Your task to perform on an android device: snooze an email in the gmail app Image 0: 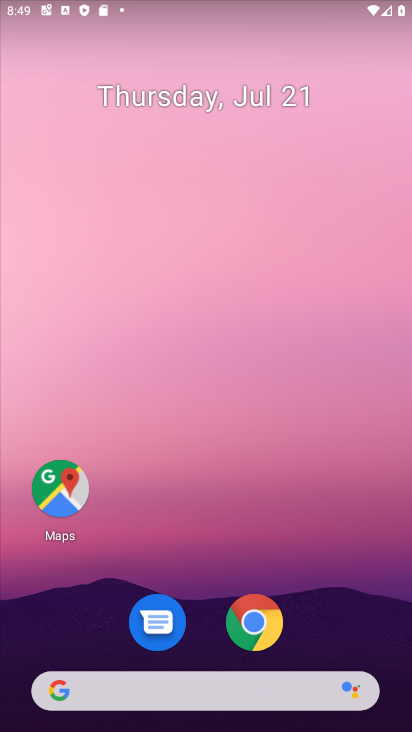
Step 0: drag from (67, 709) to (147, 62)
Your task to perform on an android device: snooze an email in the gmail app Image 1: 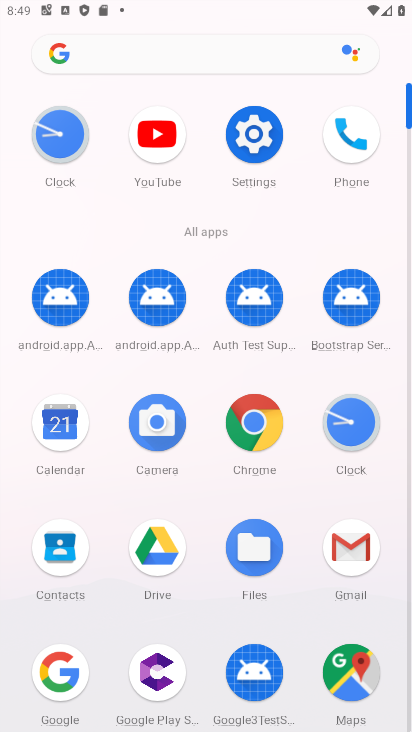
Step 1: click (332, 547)
Your task to perform on an android device: snooze an email in the gmail app Image 2: 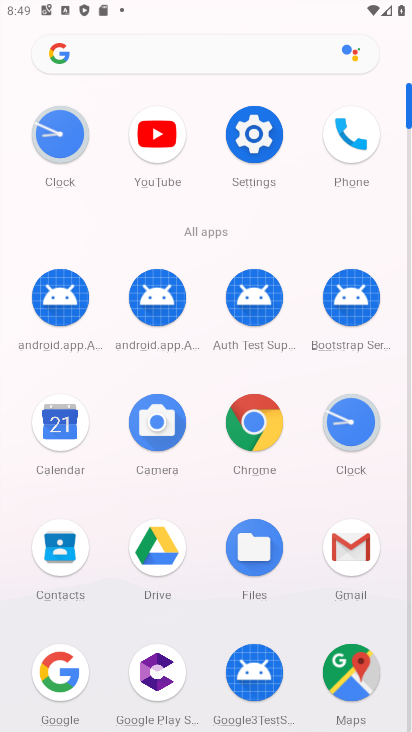
Step 2: click (332, 547)
Your task to perform on an android device: snooze an email in the gmail app Image 3: 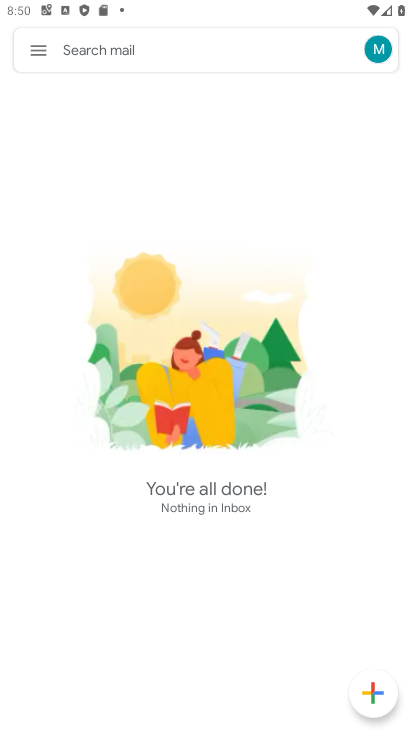
Step 3: click (36, 50)
Your task to perform on an android device: snooze an email in the gmail app Image 4: 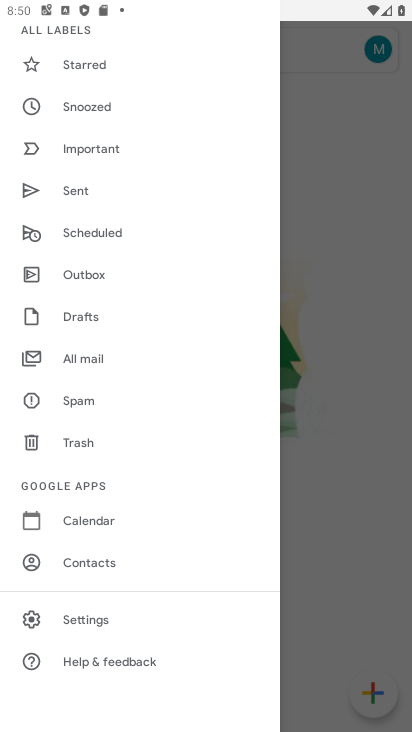
Step 4: click (90, 106)
Your task to perform on an android device: snooze an email in the gmail app Image 5: 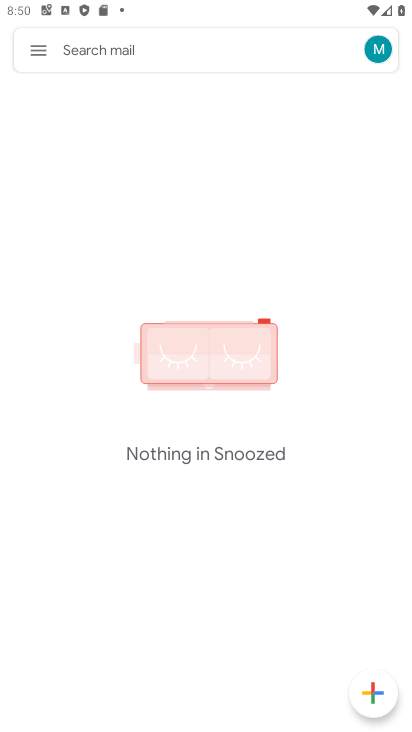
Step 5: task complete